Your task to perform on an android device: delete a single message in the gmail app Image 0: 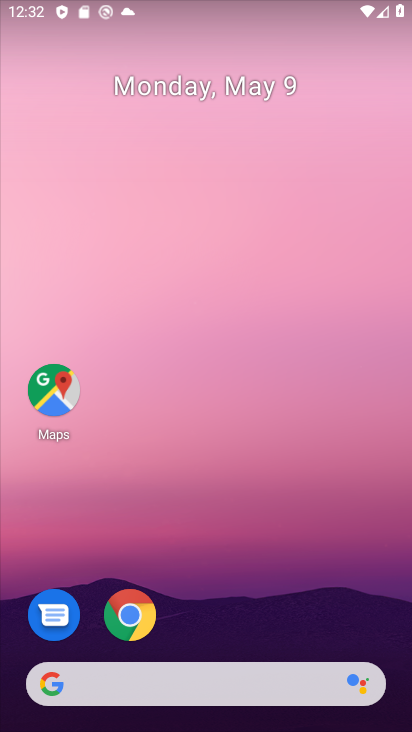
Step 0: drag from (229, 637) to (274, 174)
Your task to perform on an android device: delete a single message in the gmail app Image 1: 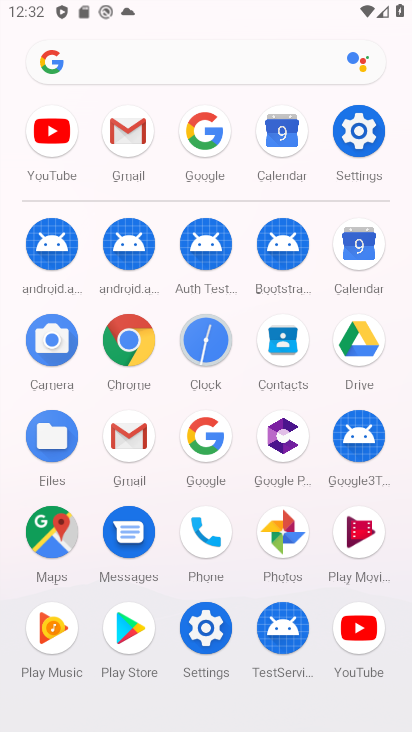
Step 1: click (122, 130)
Your task to perform on an android device: delete a single message in the gmail app Image 2: 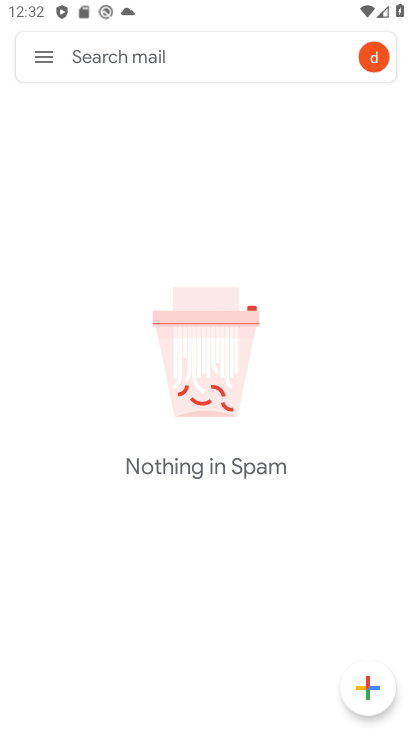
Step 2: click (41, 59)
Your task to perform on an android device: delete a single message in the gmail app Image 3: 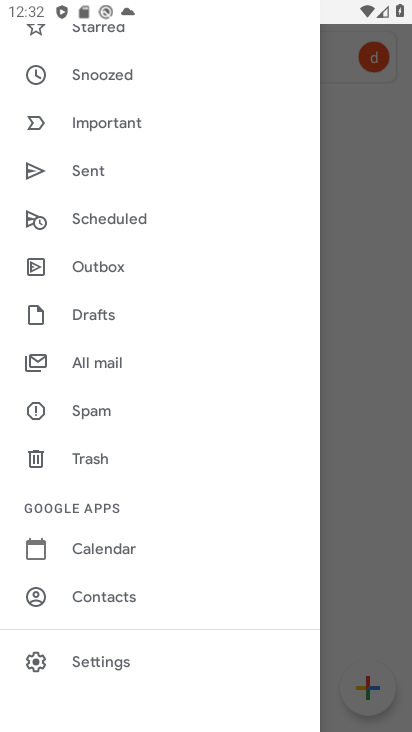
Step 3: drag from (160, 395) to (166, 468)
Your task to perform on an android device: delete a single message in the gmail app Image 4: 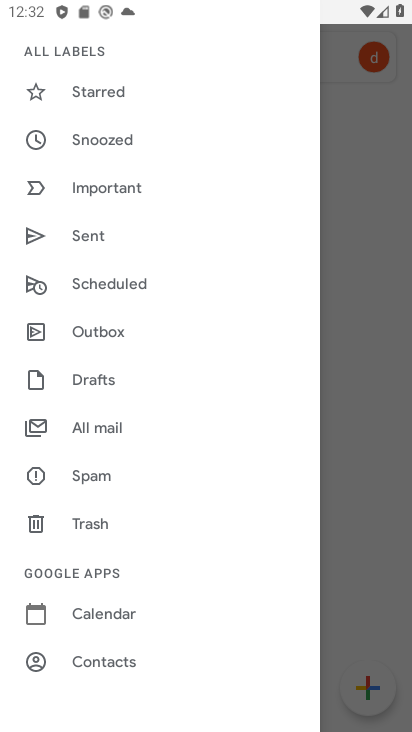
Step 4: drag from (133, 507) to (131, 425)
Your task to perform on an android device: delete a single message in the gmail app Image 5: 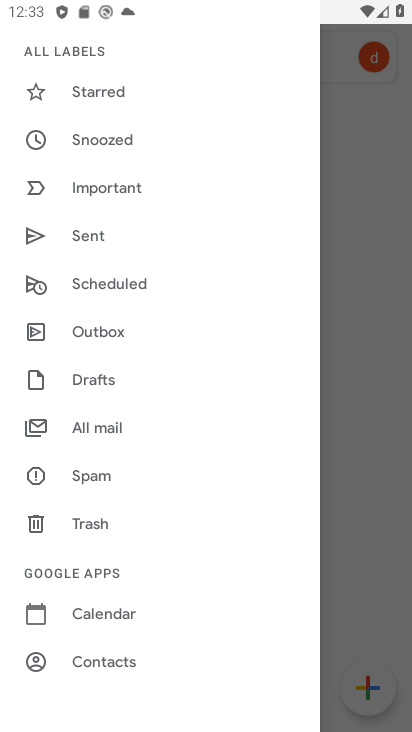
Step 5: drag from (156, 403) to (147, 480)
Your task to perform on an android device: delete a single message in the gmail app Image 6: 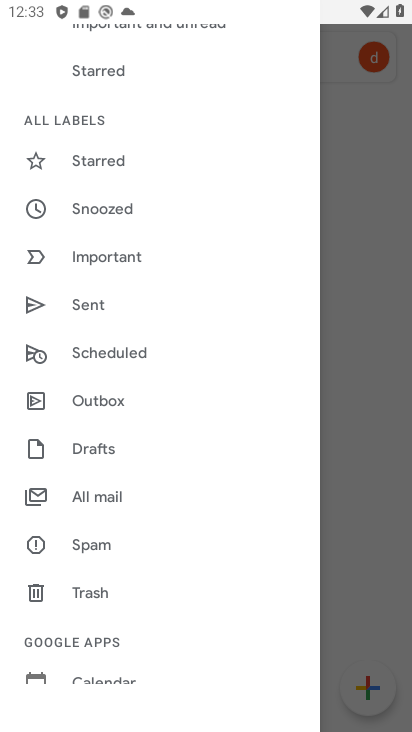
Step 6: drag from (164, 329) to (152, 446)
Your task to perform on an android device: delete a single message in the gmail app Image 7: 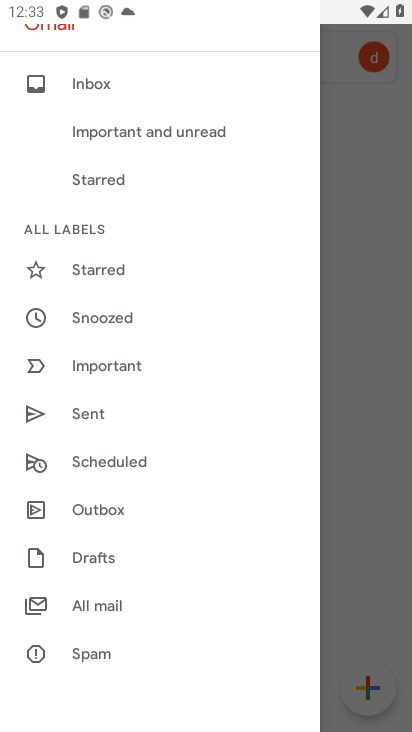
Step 7: drag from (163, 290) to (149, 402)
Your task to perform on an android device: delete a single message in the gmail app Image 8: 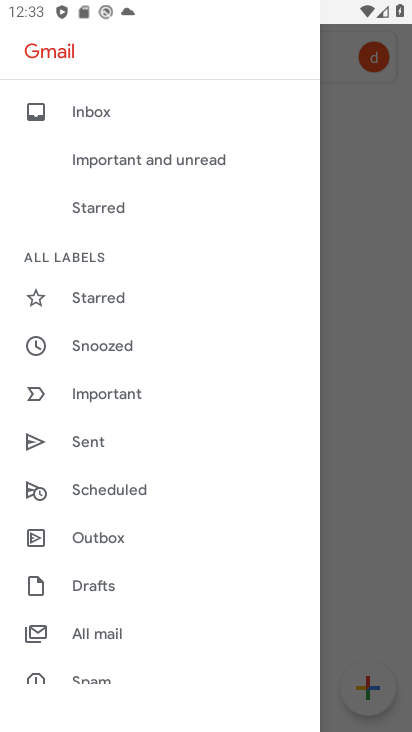
Step 8: drag from (104, 457) to (149, 341)
Your task to perform on an android device: delete a single message in the gmail app Image 9: 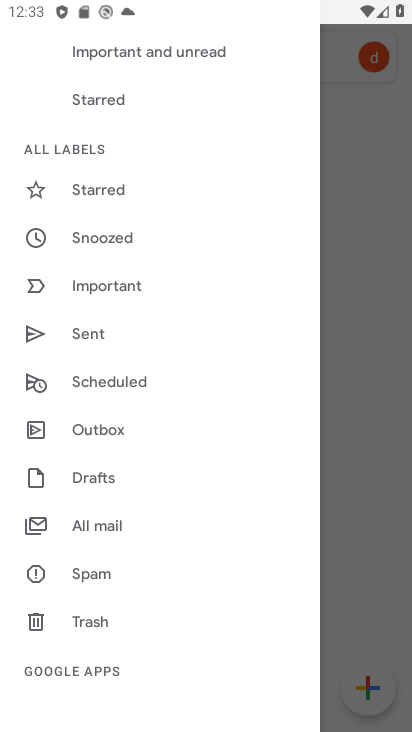
Step 9: click (84, 517)
Your task to perform on an android device: delete a single message in the gmail app Image 10: 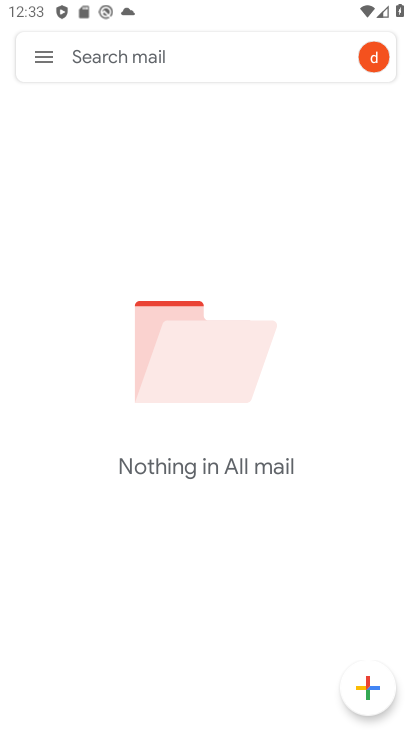
Step 10: click (46, 58)
Your task to perform on an android device: delete a single message in the gmail app Image 11: 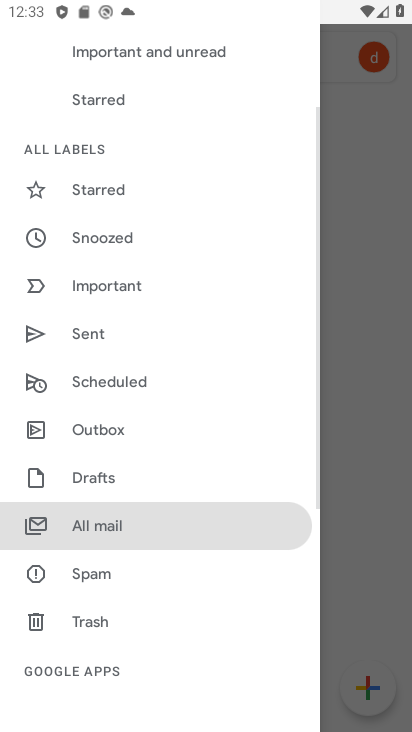
Step 11: drag from (127, 217) to (212, 371)
Your task to perform on an android device: delete a single message in the gmail app Image 12: 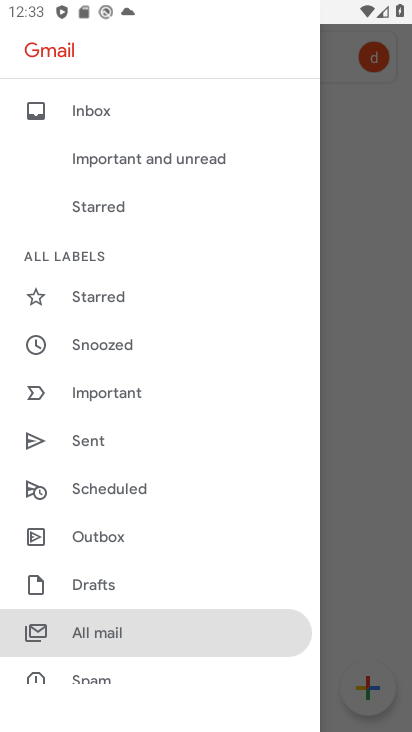
Step 12: click (73, 117)
Your task to perform on an android device: delete a single message in the gmail app Image 13: 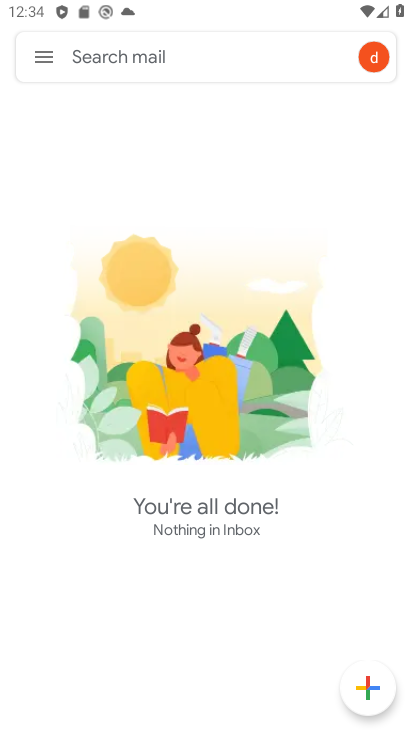
Step 13: click (46, 66)
Your task to perform on an android device: delete a single message in the gmail app Image 14: 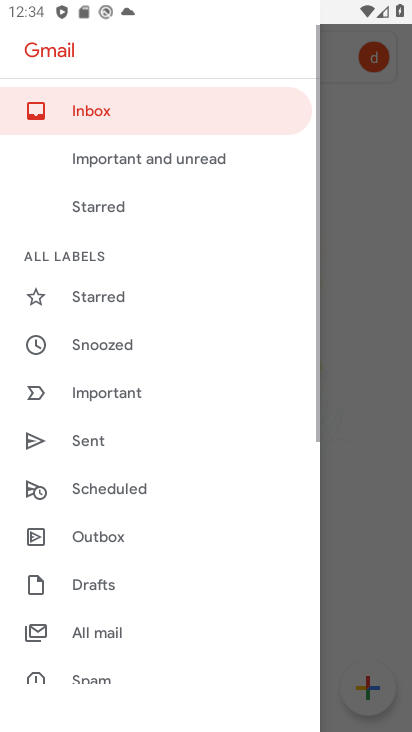
Step 14: drag from (167, 518) to (178, 434)
Your task to perform on an android device: delete a single message in the gmail app Image 15: 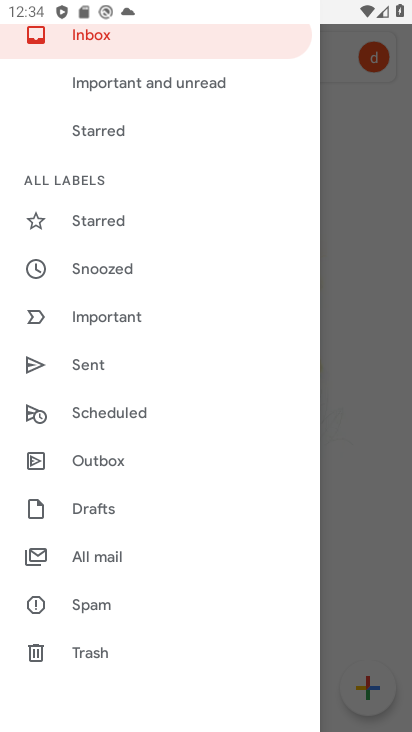
Step 15: drag from (173, 577) to (168, 469)
Your task to perform on an android device: delete a single message in the gmail app Image 16: 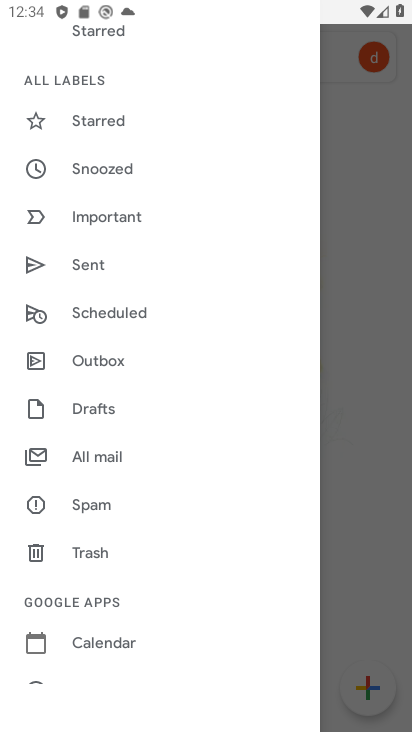
Step 16: click (107, 553)
Your task to perform on an android device: delete a single message in the gmail app Image 17: 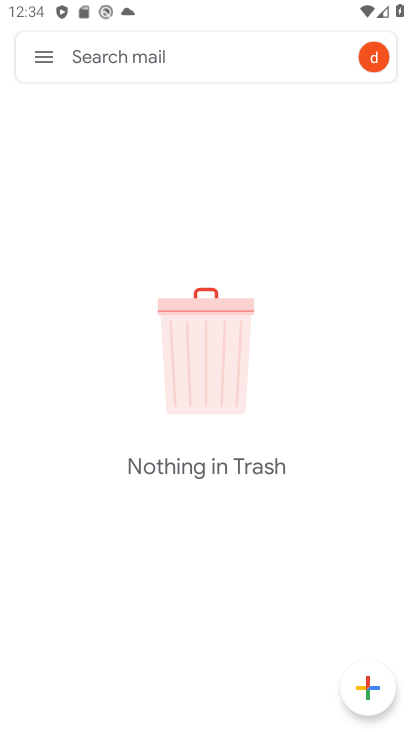
Step 17: task complete